Your task to perform on an android device: Clear the cart on target. Image 0: 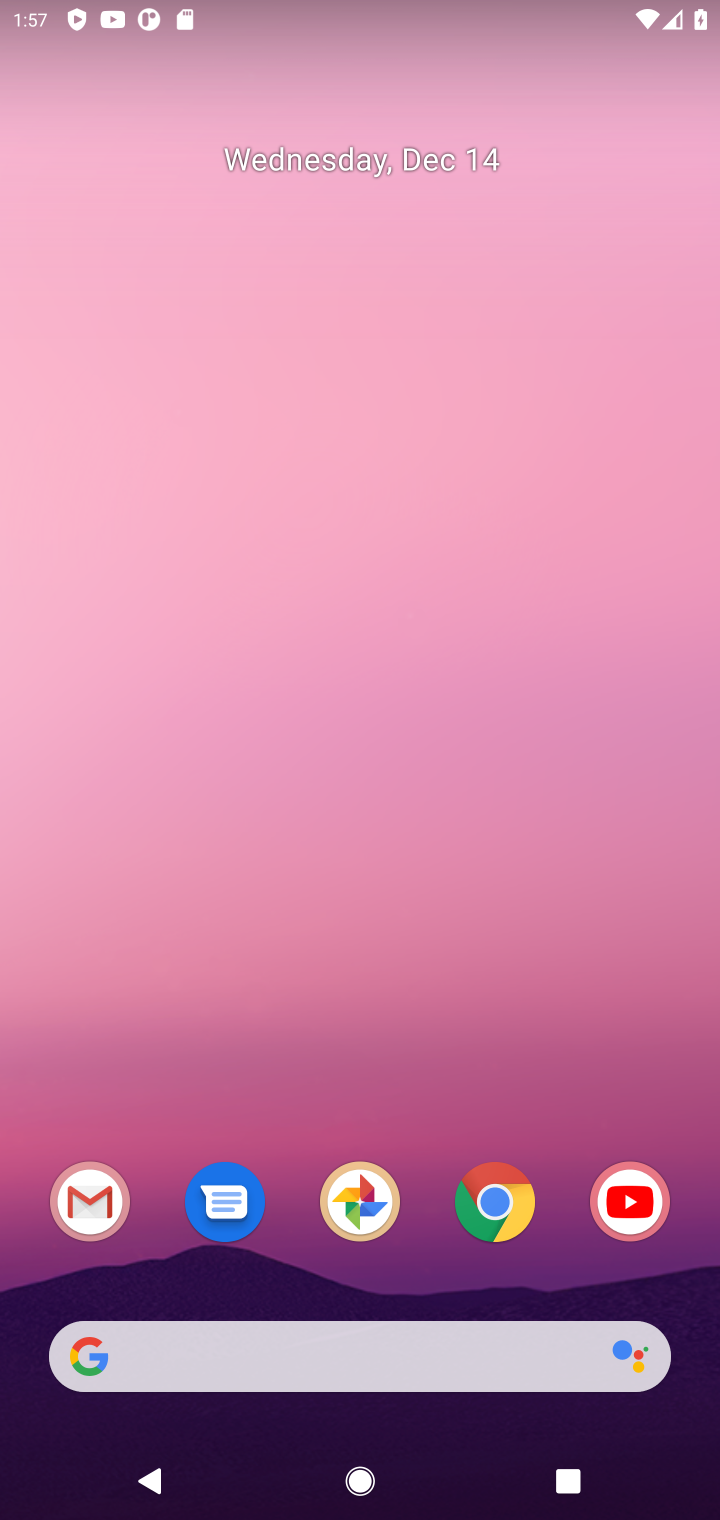
Step 0: click (495, 1209)
Your task to perform on an android device: Clear the cart on target. Image 1: 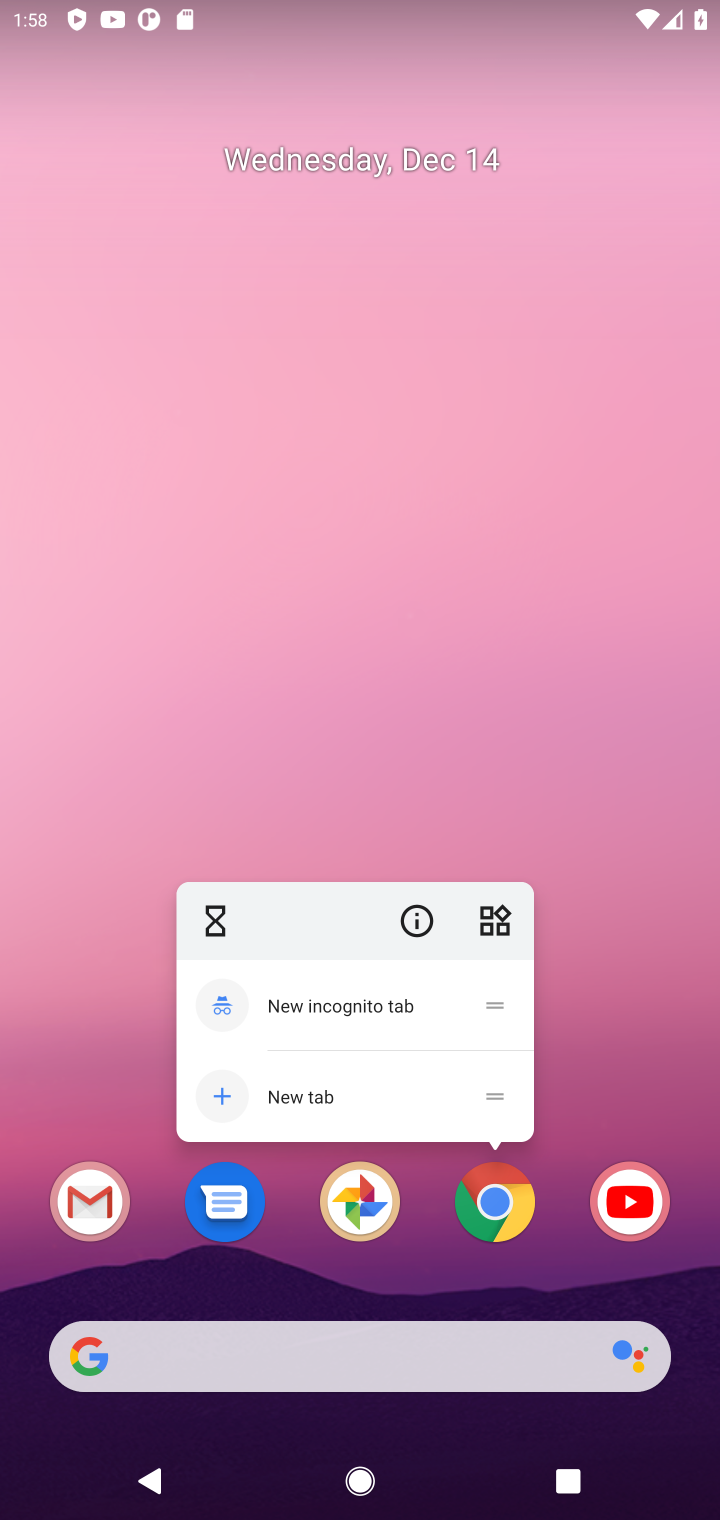
Step 1: click (501, 1169)
Your task to perform on an android device: Clear the cart on target. Image 2: 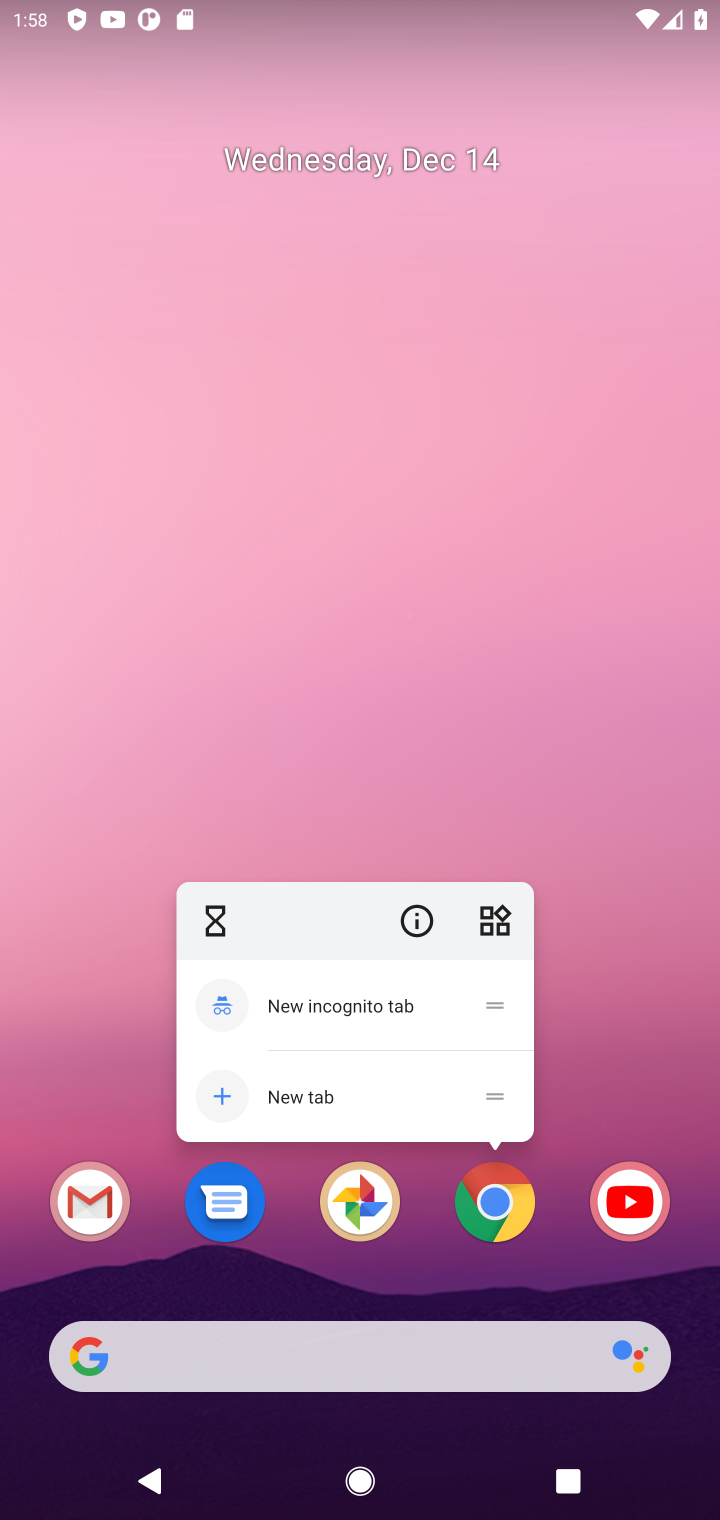
Step 2: click (501, 1193)
Your task to perform on an android device: Clear the cart on target. Image 3: 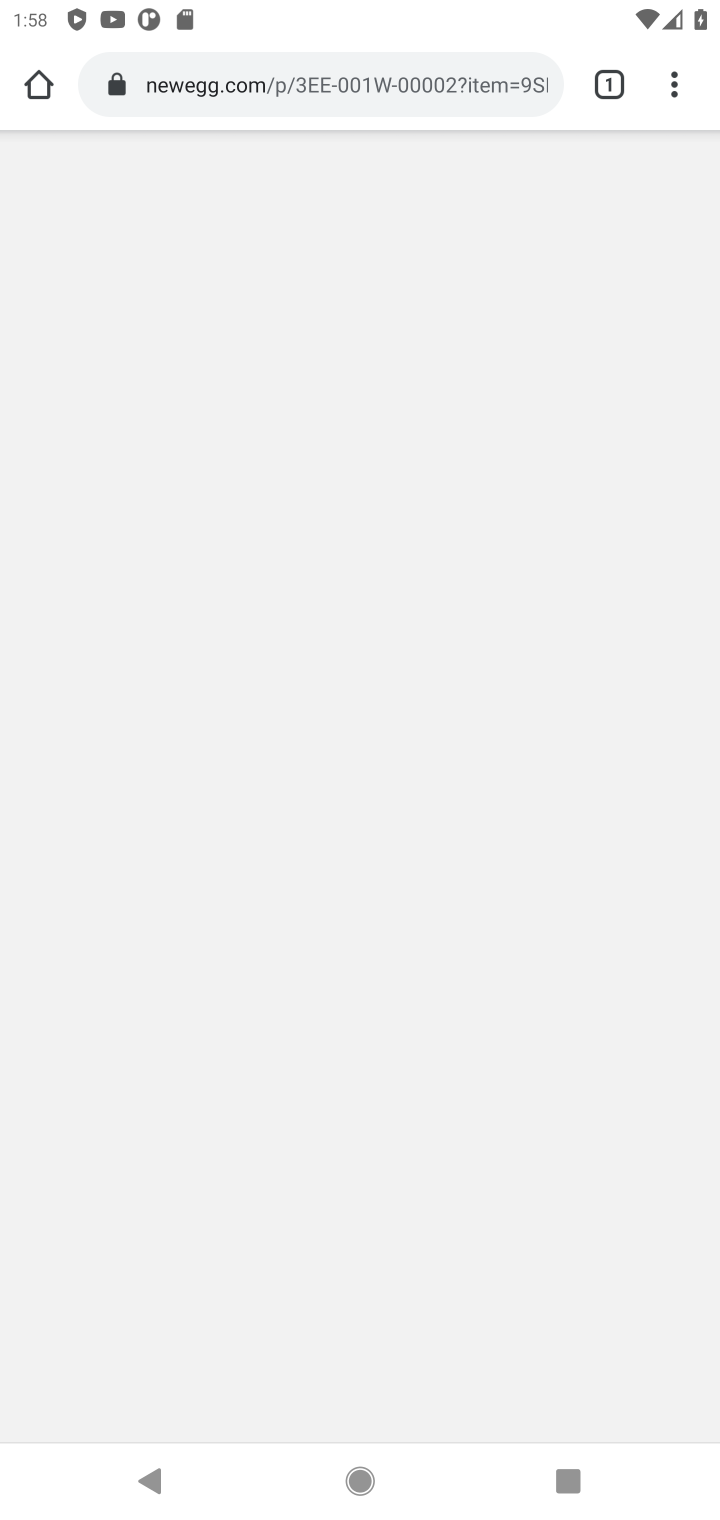
Step 3: click (332, 85)
Your task to perform on an android device: Clear the cart on target. Image 4: 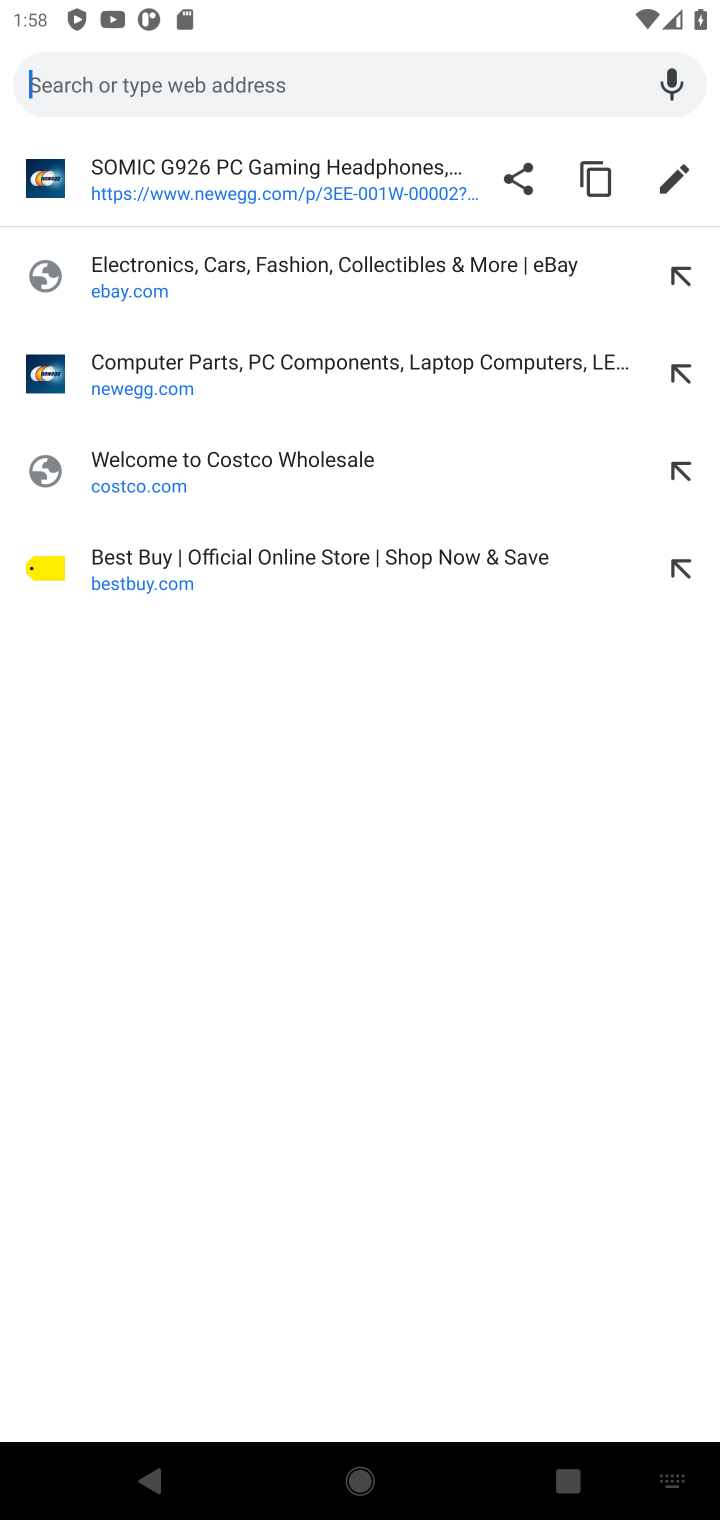
Step 4: type "TARGET"
Your task to perform on an android device: Clear the cart on target. Image 5: 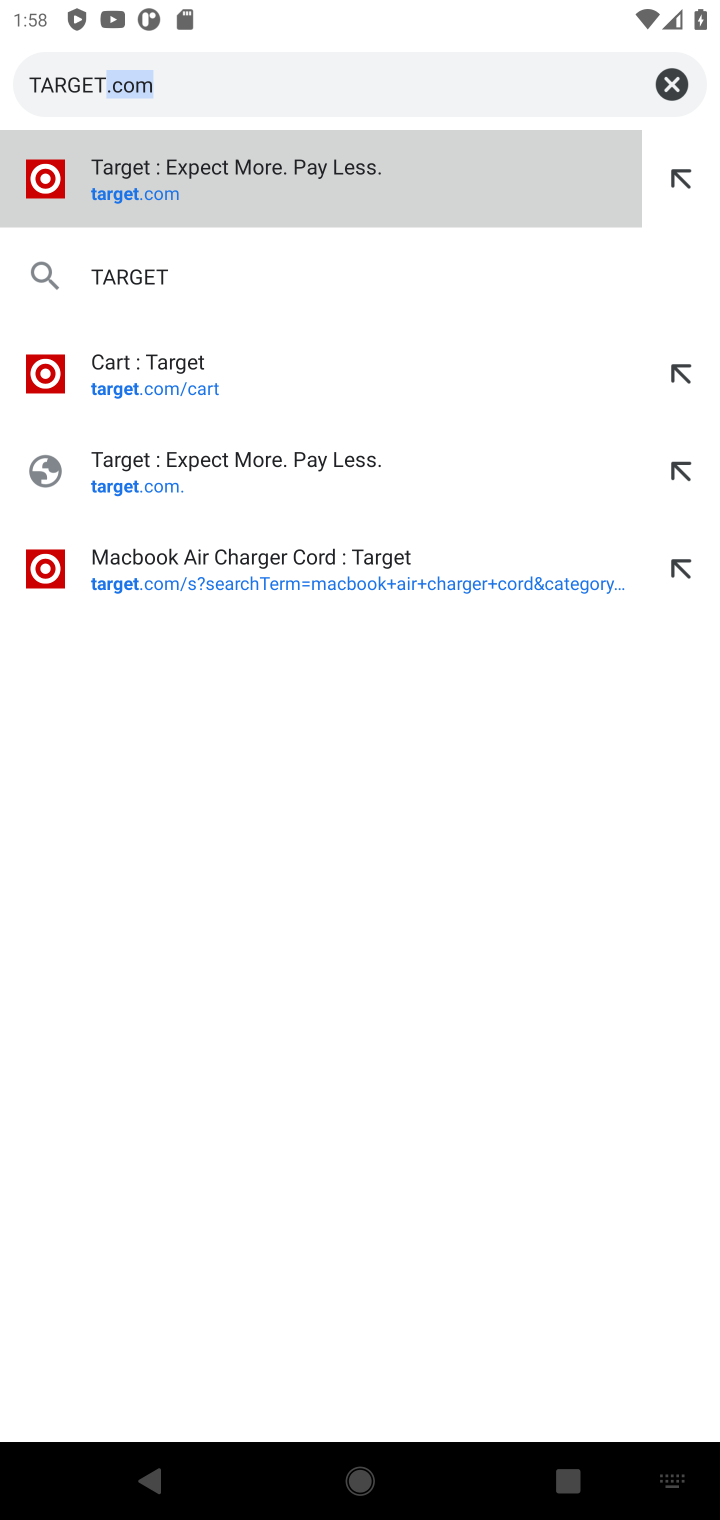
Step 5: click (329, 176)
Your task to perform on an android device: Clear the cart on target. Image 6: 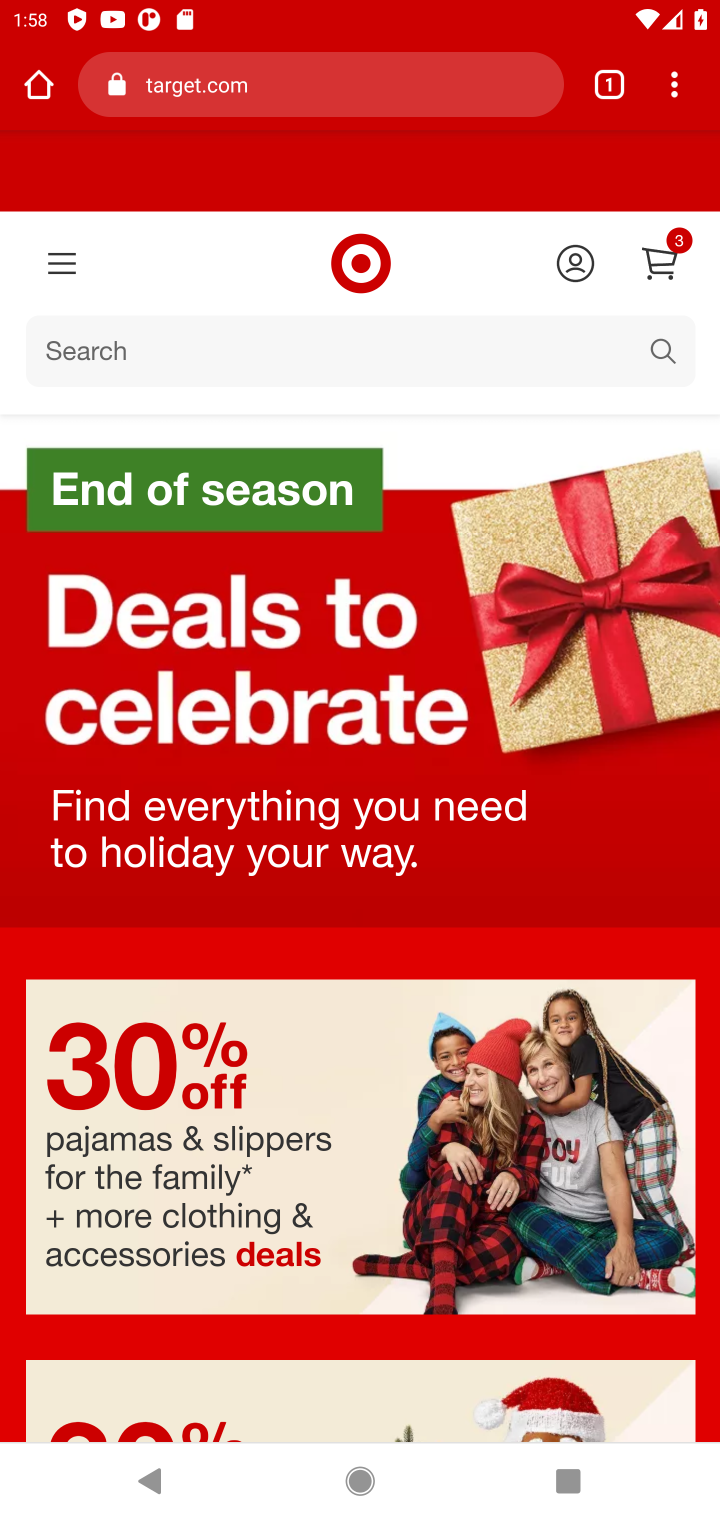
Step 6: click (653, 263)
Your task to perform on an android device: Clear the cart on target. Image 7: 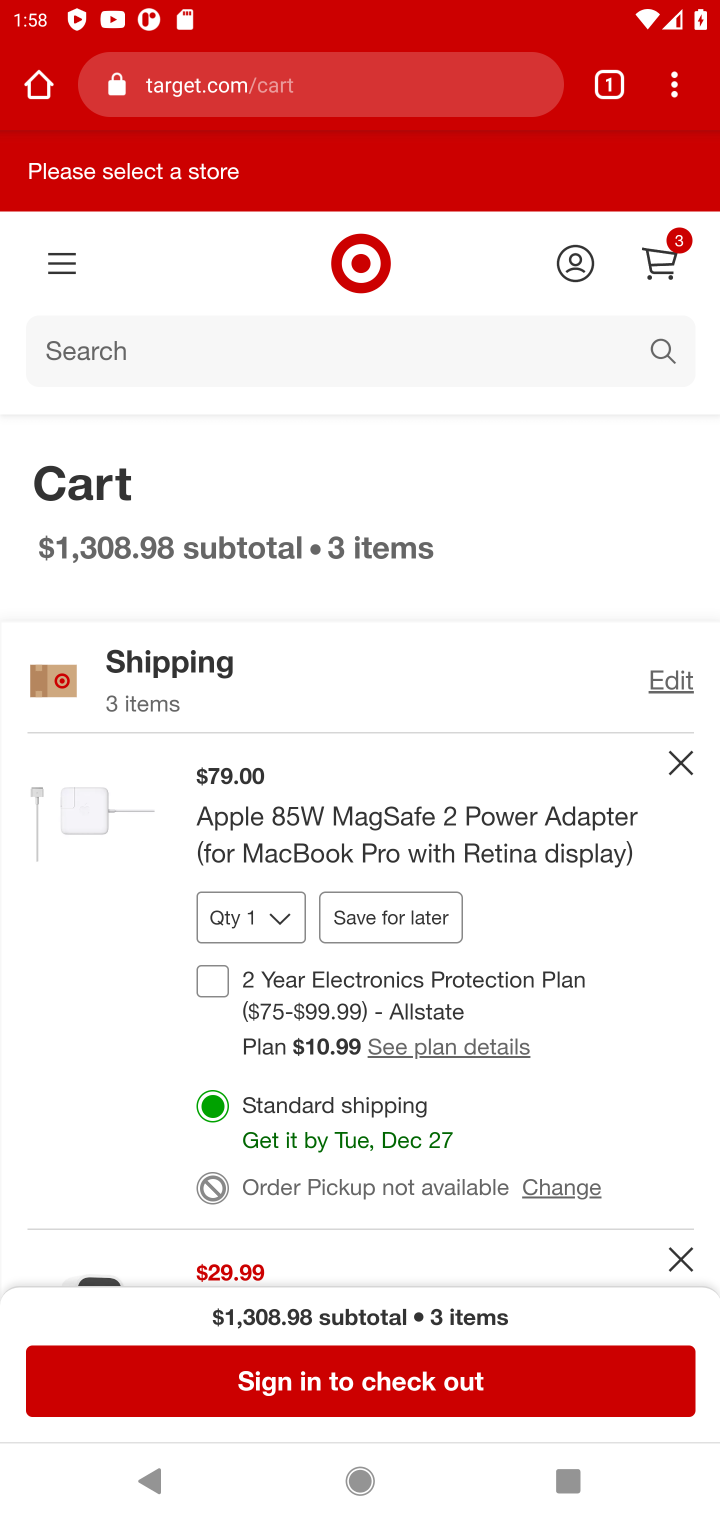
Step 7: click (671, 761)
Your task to perform on an android device: Clear the cart on target. Image 8: 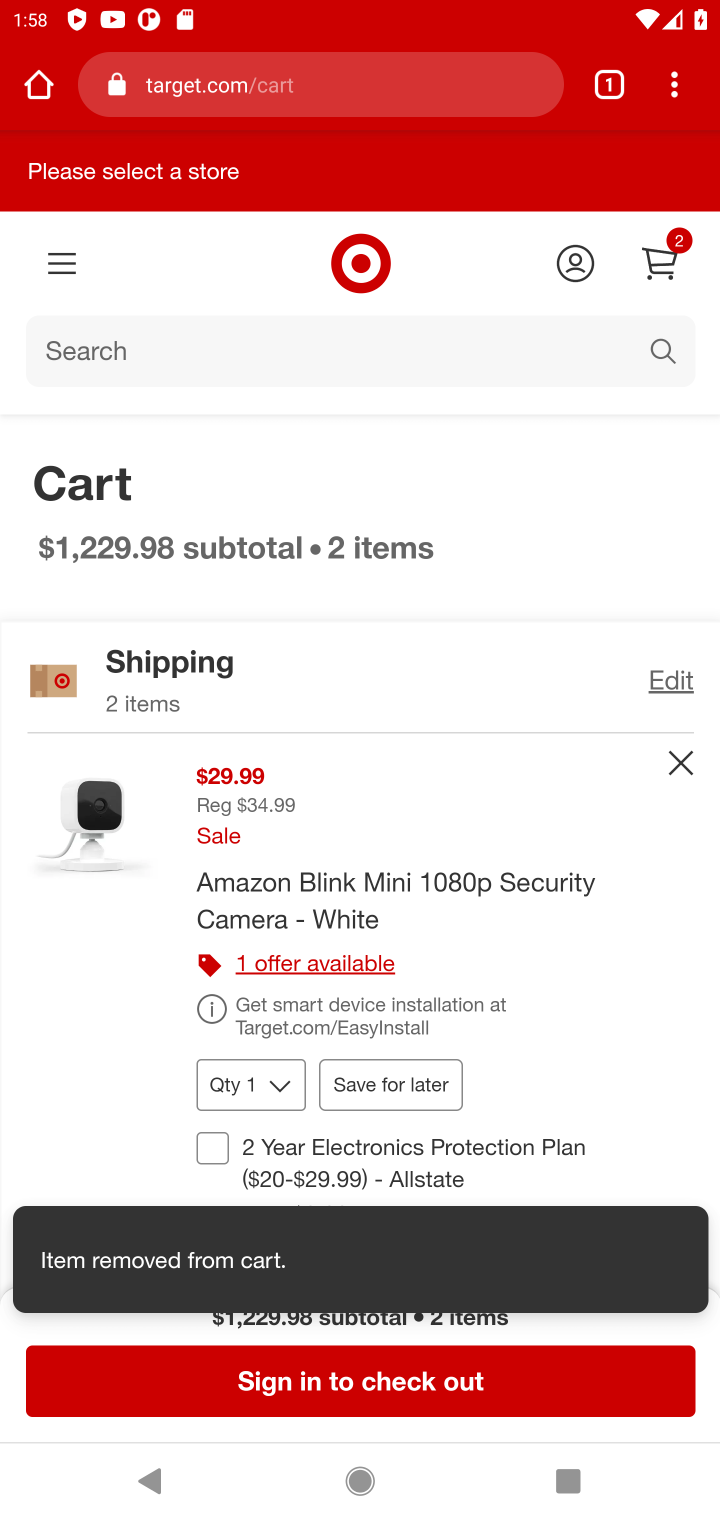
Step 8: click (671, 761)
Your task to perform on an android device: Clear the cart on target. Image 9: 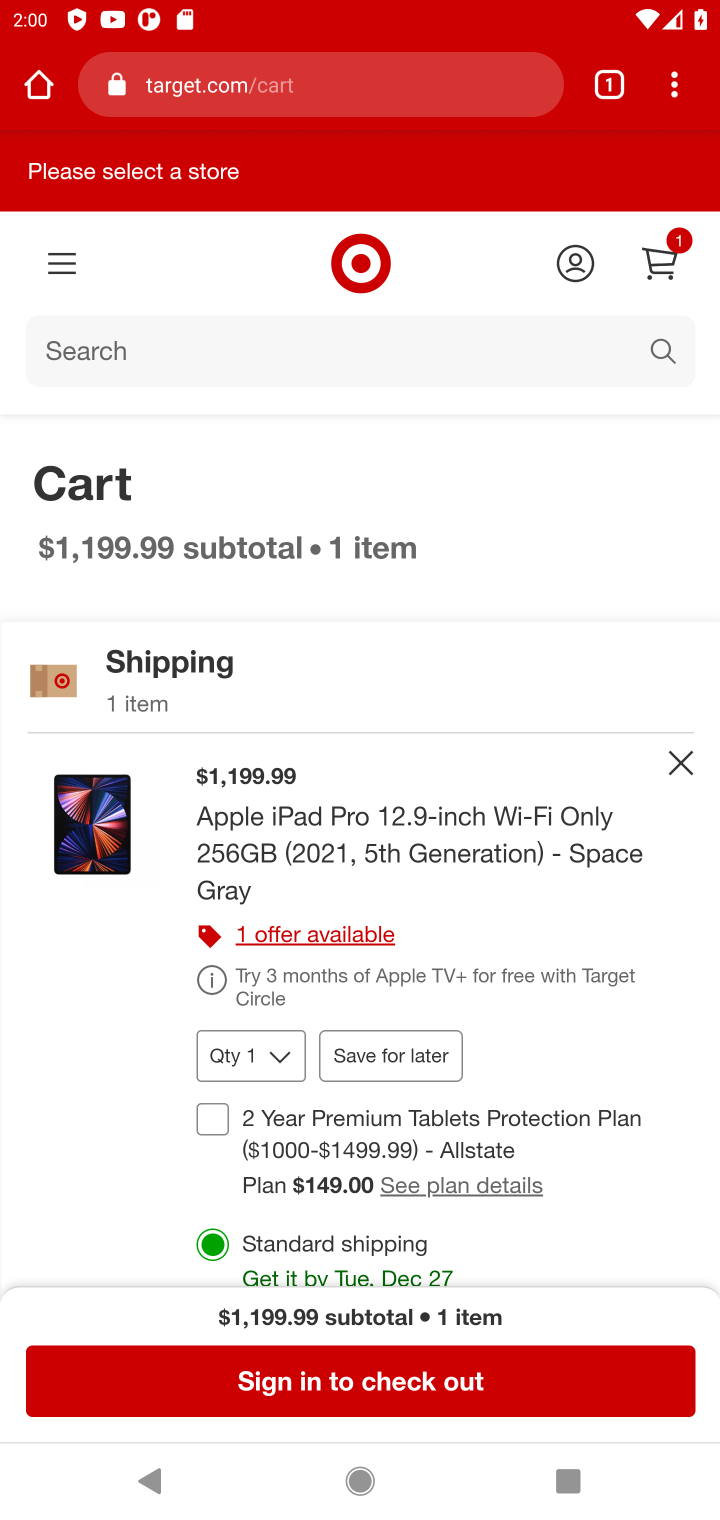
Step 9: click (674, 765)
Your task to perform on an android device: Clear the cart on target. Image 10: 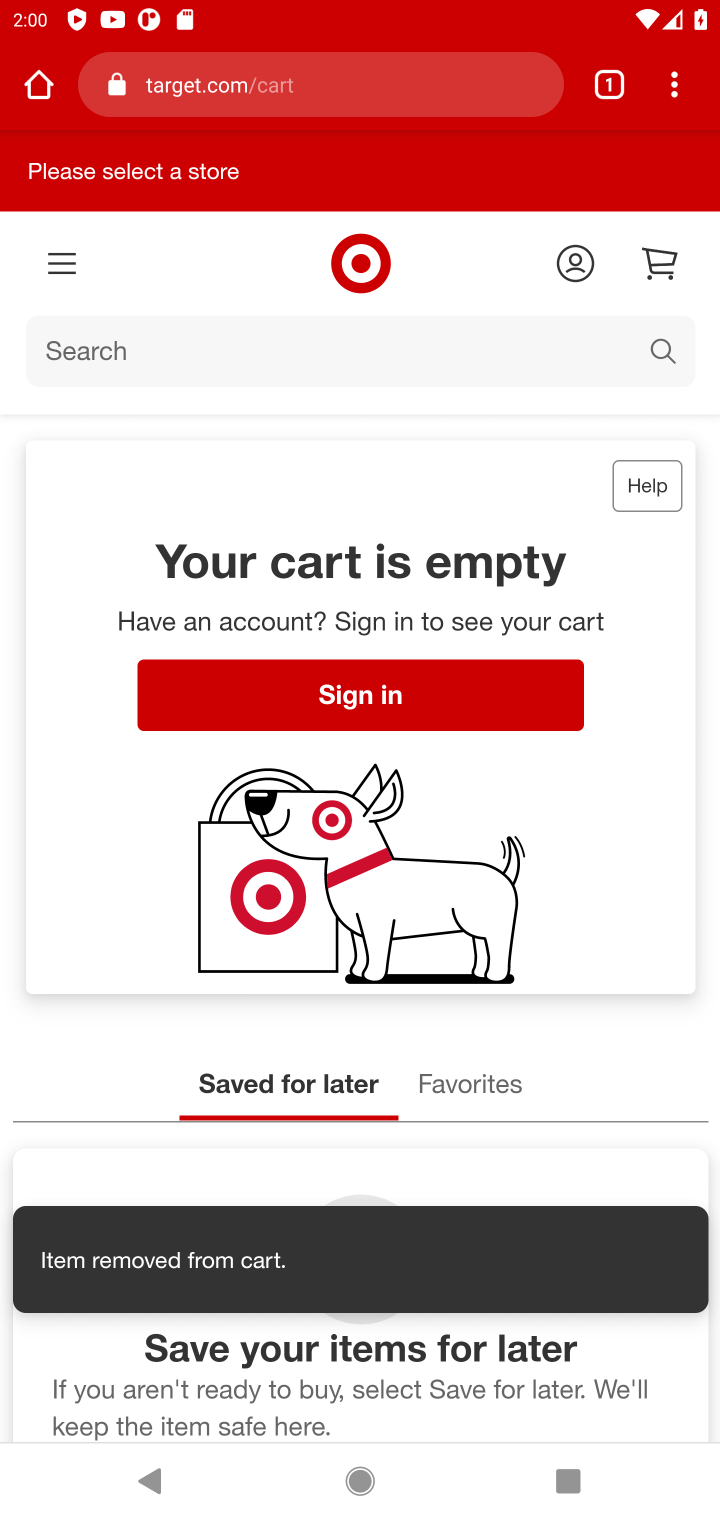
Step 10: task complete